Your task to perform on an android device: toggle pop-ups in chrome Image 0: 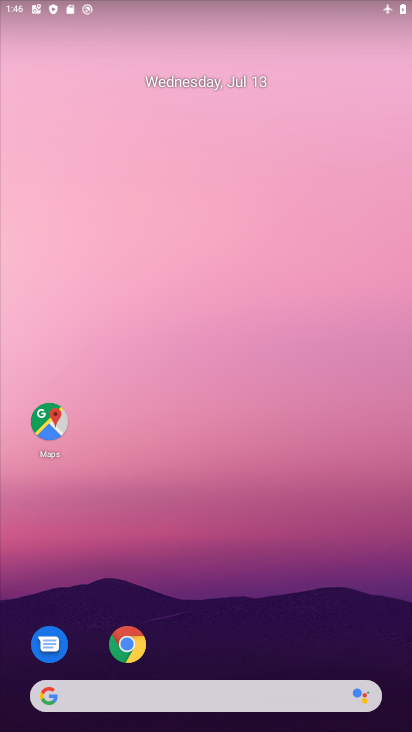
Step 0: drag from (316, 622) to (317, 211)
Your task to perform on an android device: toggle pop-ups in chrome Image 1: 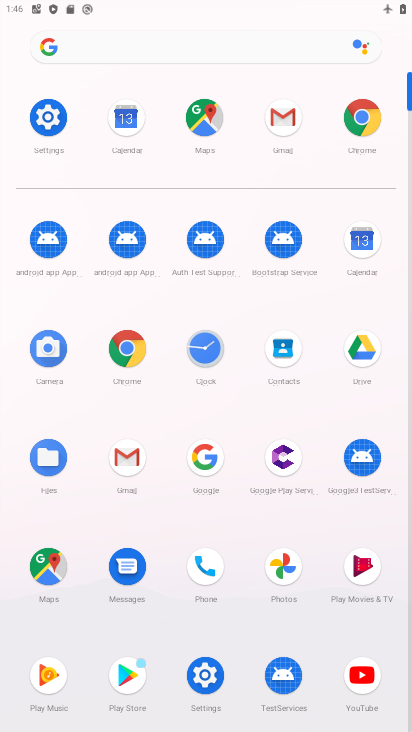
Step 1: click (370, 117)
Your task to perform on an android device: toggle pop-ups in chrome Image 2: 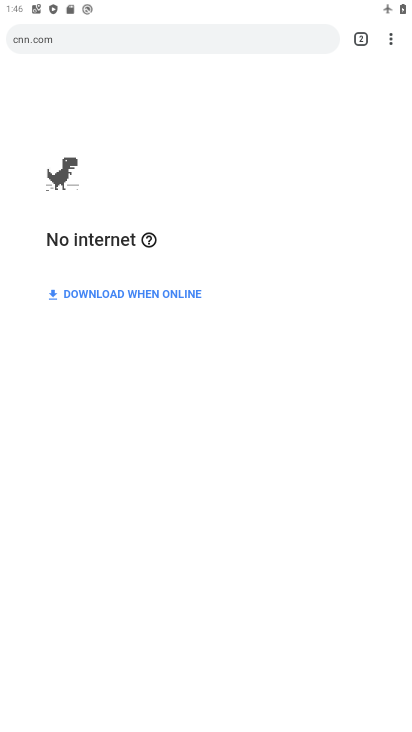
Step 2: click (392, 33)
Your task to perform on an android device: toggle pop-ups in chrome Image 3: 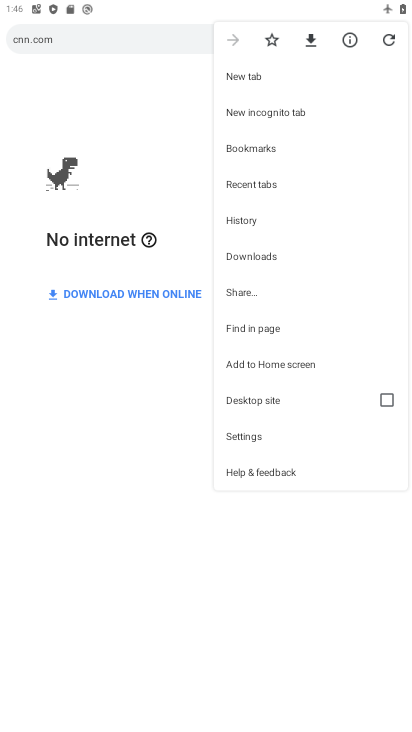
Step 3: click (257, 445)
Your task to perform on an android device: toggle pop-ups in chrome Image 4: 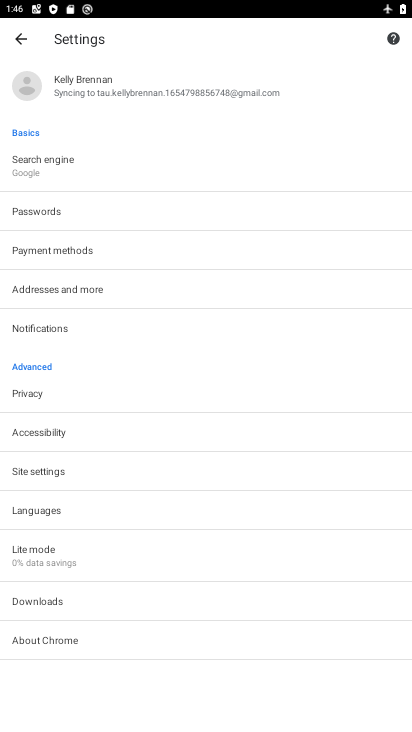
Step 4: click (21, 478)
Your task to perform on an android device: toggle pop-ups in chrome Image 5: 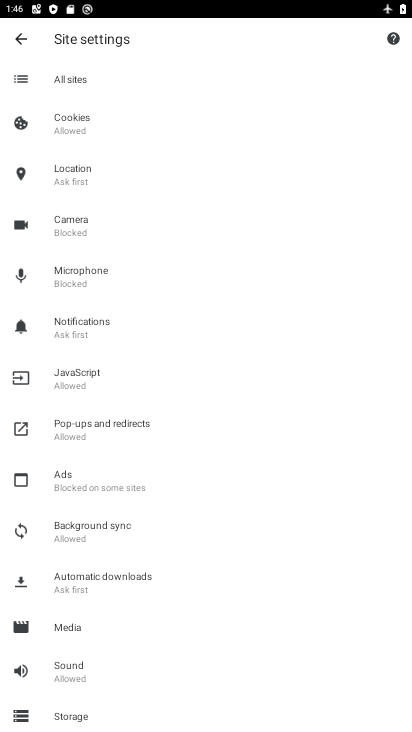
Step 5: click (103, 425)
Your task to perform on an android device: toggle pop-ups in chrome Image 6: 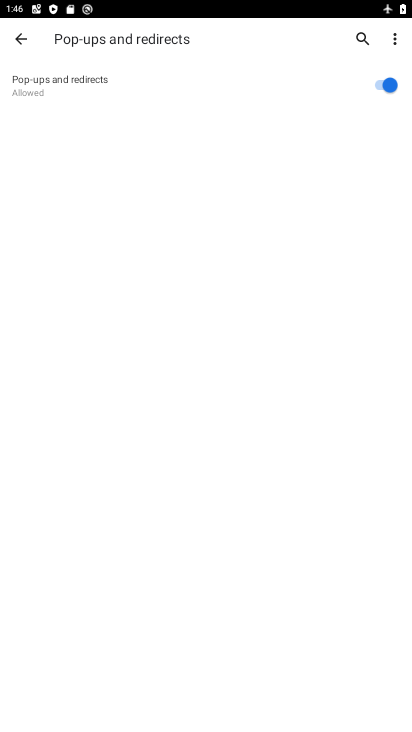
Step 6: click (381, 83)
Your task to perform on an android device: toggle pop-ups in chrome Image 7: 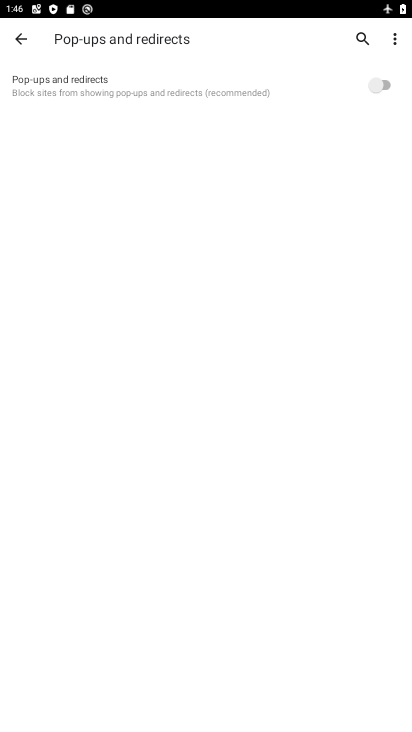
Step 7: task complete